Your task to perform on an android device: Do I have any events tomorrow? Image 0: 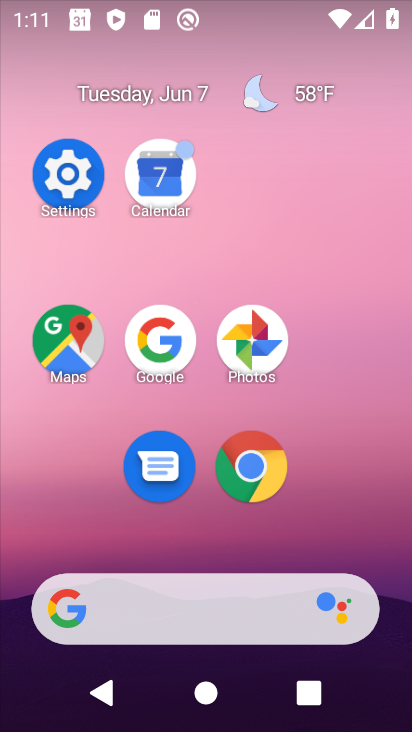
Step 0: click (181, 194)
Your task to perform on an android device: Do I have any events tomorrow? Image 1: 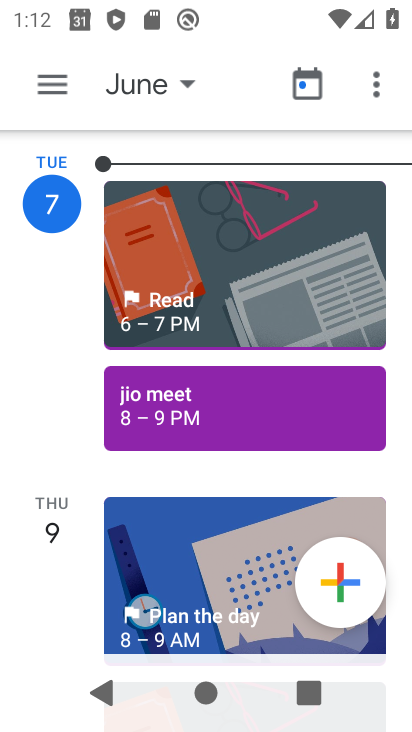
Step 1: click (151, 95)
Your task to perform on an android device: Do I have any events tomorrow? Image 2: 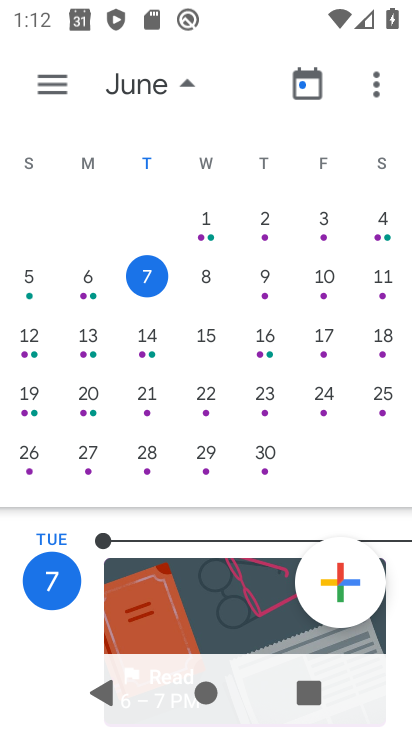
Step 2: click (204, 282)
Your task to perform on an android device: Do I have any events tomorrow? Image 3: 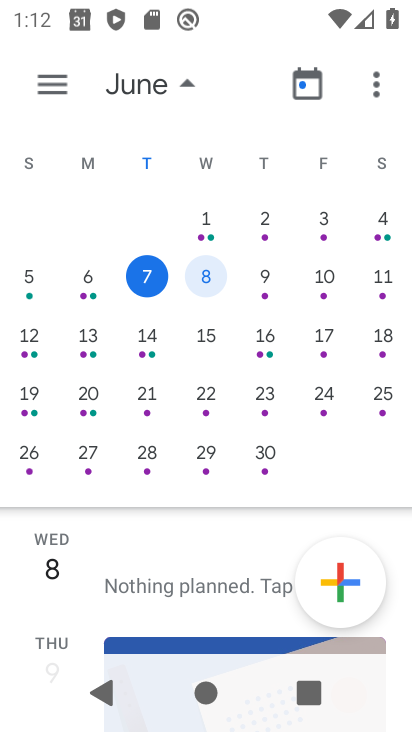
Step 3: click (204, 282)
Your task to perform on an android device: Do I have any events tomorrow? Image 4: 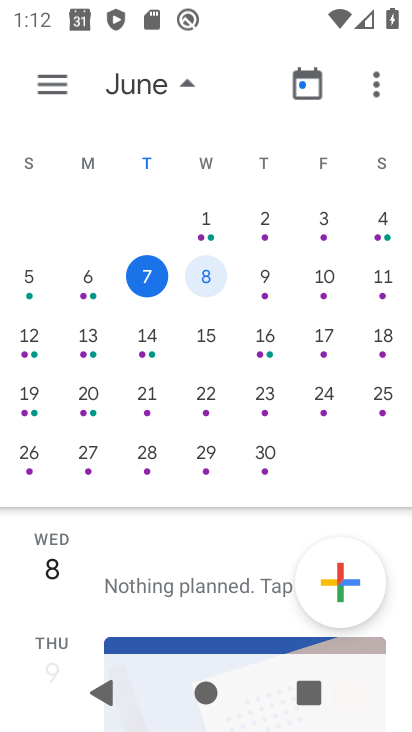
Step 4: task complete